Your task to perform on an android device: Search for the most popular books on Goodreads Image 0: 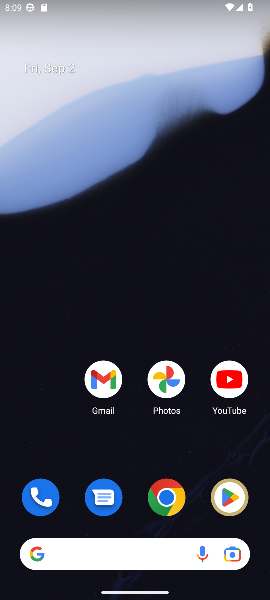
Step 0: drag from (130, 524) to (119, 110)
Your task to perform on an android device: Search for the most popular books on Goodreads Image 1: 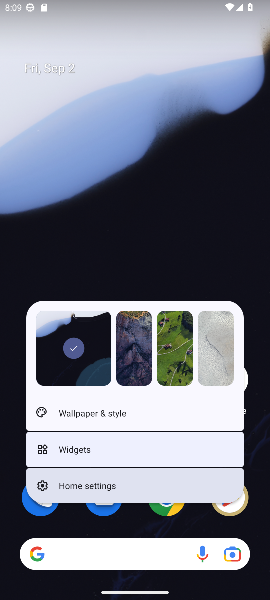
Step 1: drag from (127, 521) to (124, 158)
Your task to perform on an android device: Search for the most popular books on Goodreads Image 2: 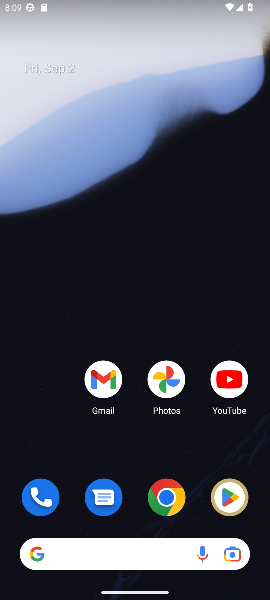
Step 2: drag from (116, 459) to (97, 154)
Your task to perform on an android device: Search for the most popular books on Goodreads Image 3: 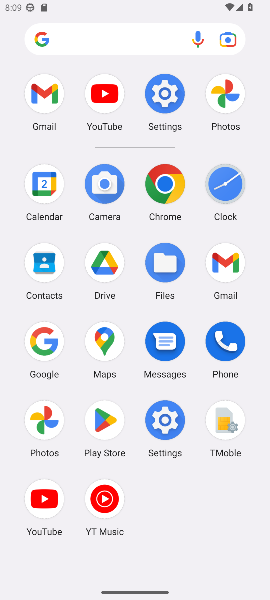
Step 3: click (41, 355)
Your task to perform on an android device: Search for the most popular books on Goodreads Image 4: 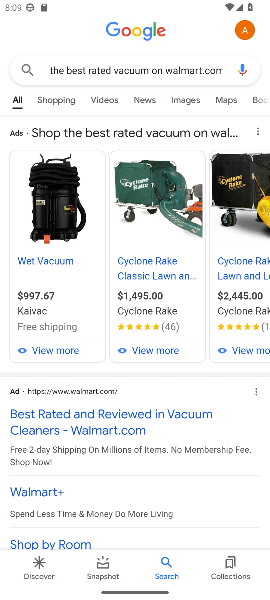
Step 4: click (144, 76)
Your task to perform on an android device: Search for the most popular books on Goodreads Image 5: 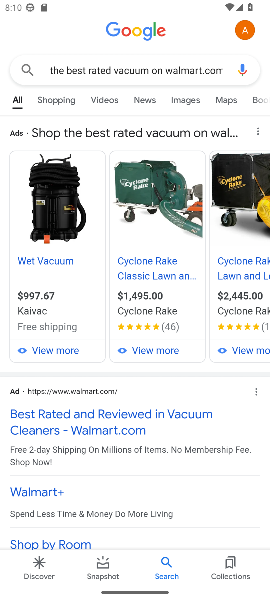
Step 5: click (144, 76)
Your task to perform on an android device: Search for the most popular books on Goodreads Image 6: 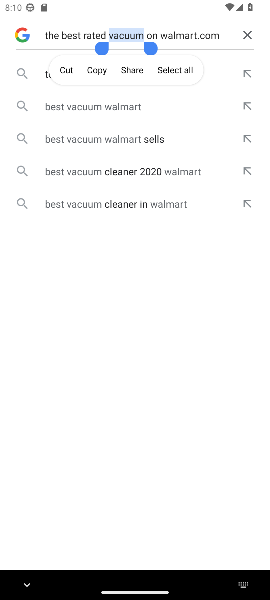
Step 6: click (250, 34)
Your task to perform on an android device: Search for the most popular books on Goodreads Image 7: 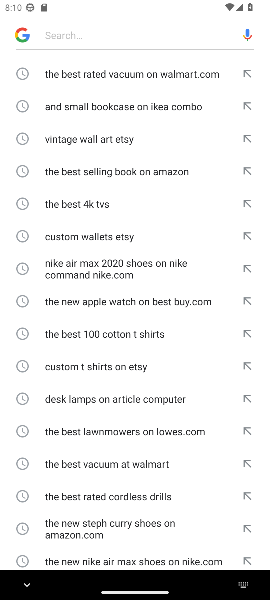
Step 7: type "the most popular books on Goodreads"
Your task to perform on an android device: Search for the most popular books on Goodreads Image 8: 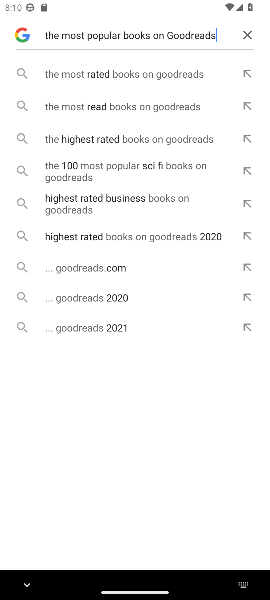
Step 8: click (178, 81)
Your task to perform on an android device: Search for the most popular books on Goodreads Image 9: 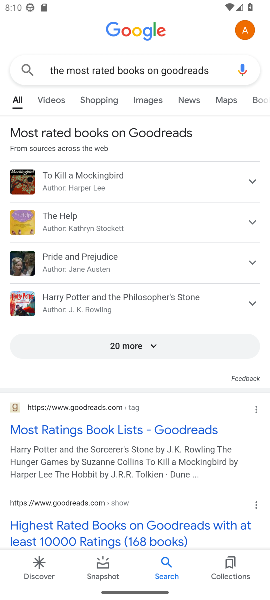
Step 9: task complete